Your task to perform on an android device: Go to Google maps Image 0: 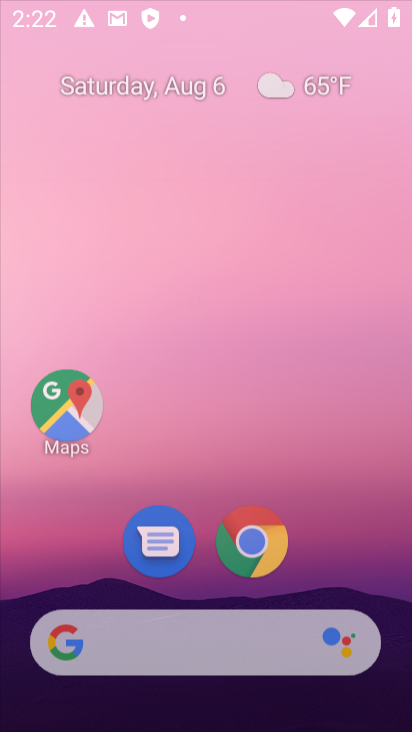
Step 0: press home button
Your task to perform on an android device: Go to Google maps Image 1: 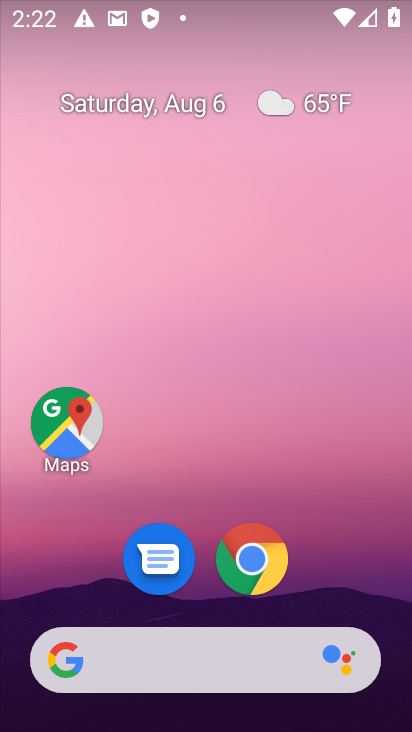
Step 1: click (65, 419)
Your task to perform on an android device: Go to Google maps Image 2: 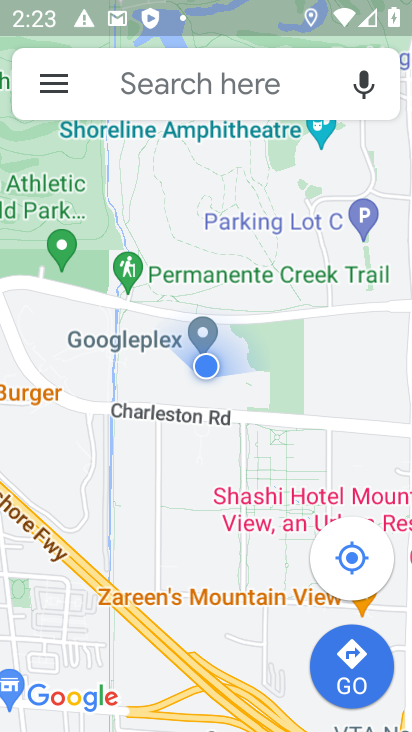
Step 2: task complete